Your task to perform on an android device: Search for razer huntsman on costco, select the first entry, and add it to the cart. Image 0: 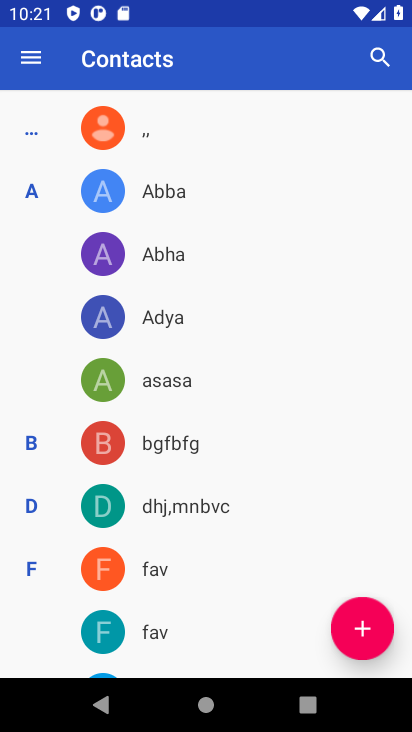
Step 0: press home button
Your task to perform on an android device: Search for razer huntsman on costco, select the first entry, and add it to the cart. Image 1: 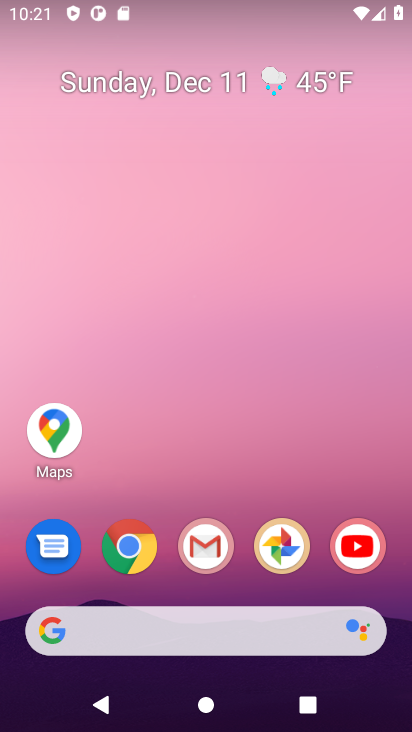
Step 1: click (131, 545)
Your task to perform on an android device: Search for razer huntsman on costco, select the first entry, and add it to the cart. Image 2: 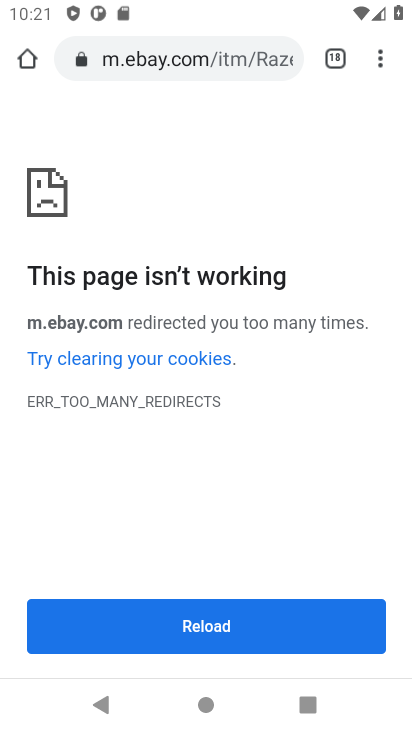
Step 2: click (168, 65)
Your task to perform on an android device: Search for razer huntsman on costco, select the first entry, and add it to the cart. Image 3: 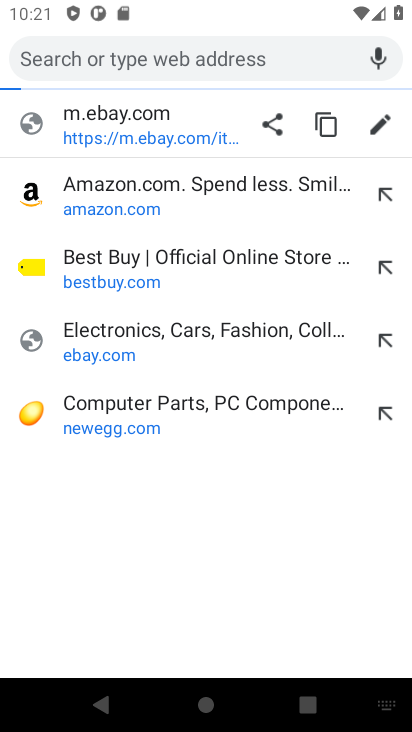
Step 3: type "costco.com"
Your task to perform on an android device: Search for razer huntsman on costco, select the first entry, and add it to the cart. Image 4: 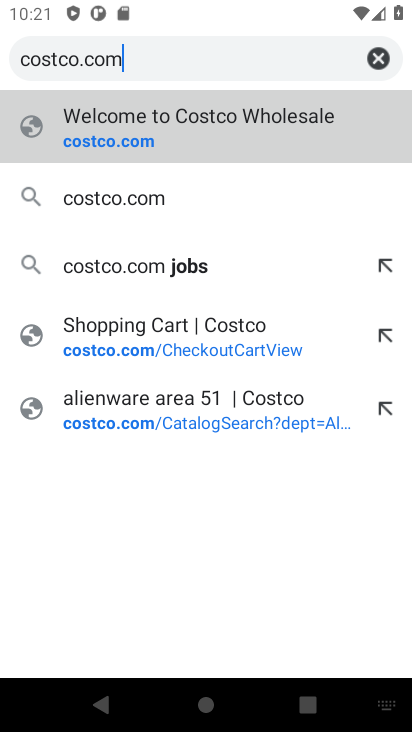
Step 4: click (102, 147)
Your task to perform on an android device: Search for razer huntsman on costco, select the first entry, and add it to the cart. Image 5: 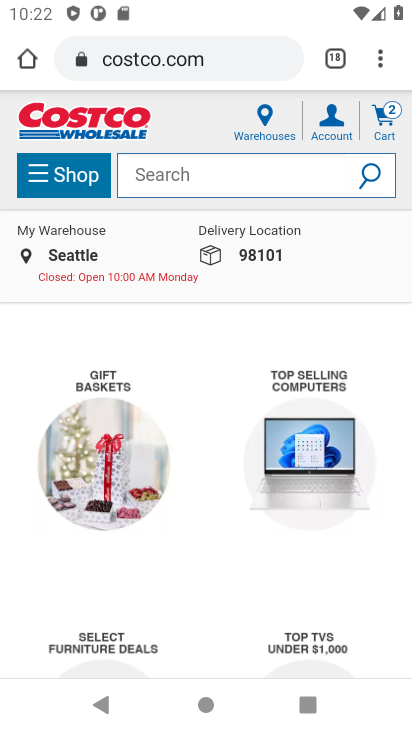
Step 5: click (201, 170)
Your task to perform on an android device: Search for razer huntsman on costco, select the first entry, and add it to the cart. Image 6: 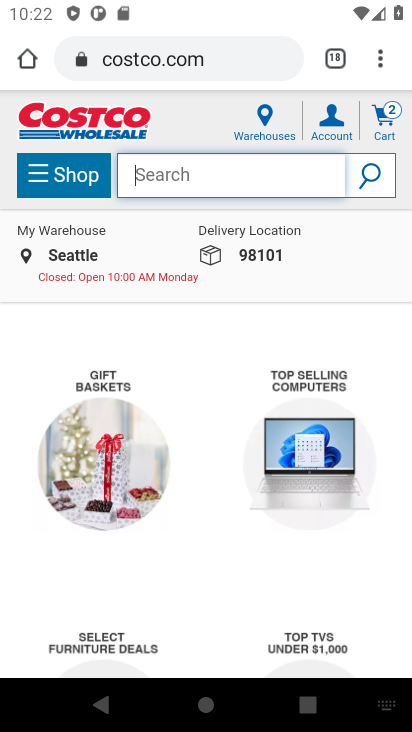
Step 6: type "razer huntsman"
Your task to perform on an android device: Search for razer huntsman on costco, select the first entry, and add it to the cart. Image 7: 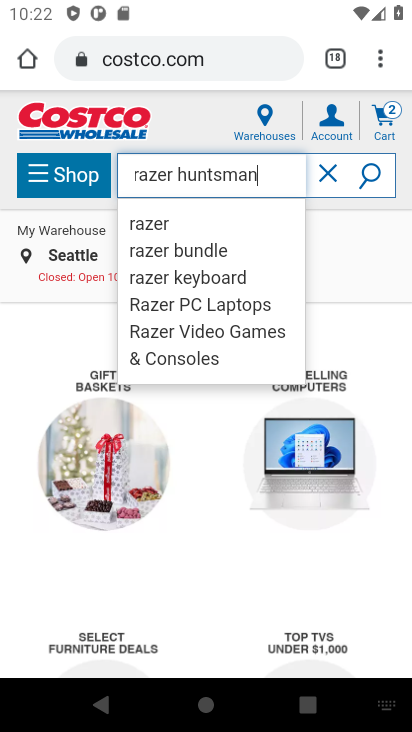
Step 7: click (372, 171)
Your task to perform on an android device: Search for razer huntsman on costco, select the first entry, and add it to the cart. Image 8: 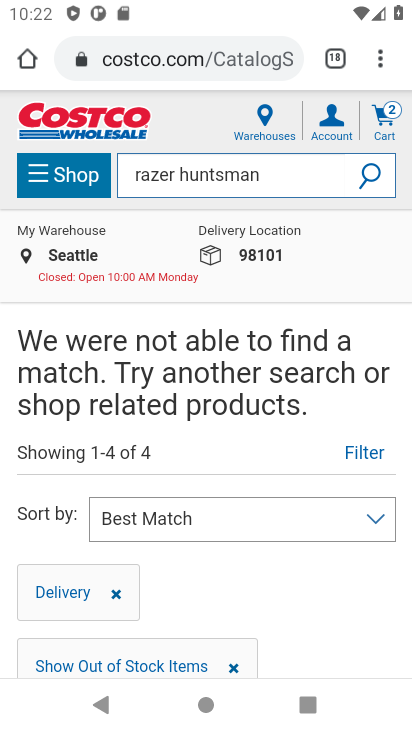
Step 8: task complete